Your task to perform on an android device: Do I have any events tomorrow? Image 0: 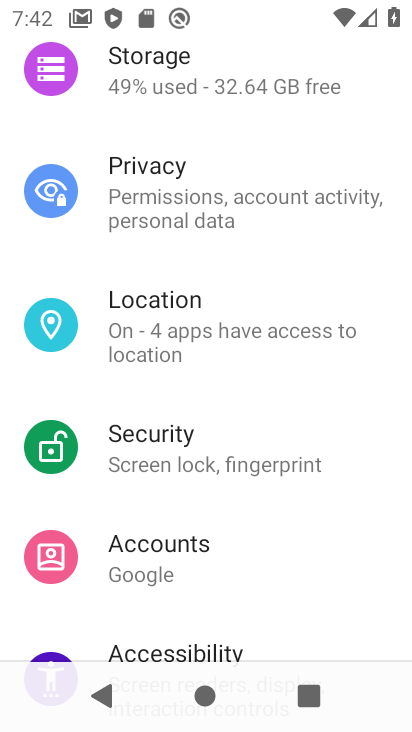
Step 0: press home button
Your task to perform on an android device: Do I have any events tomorrow? Image 1: 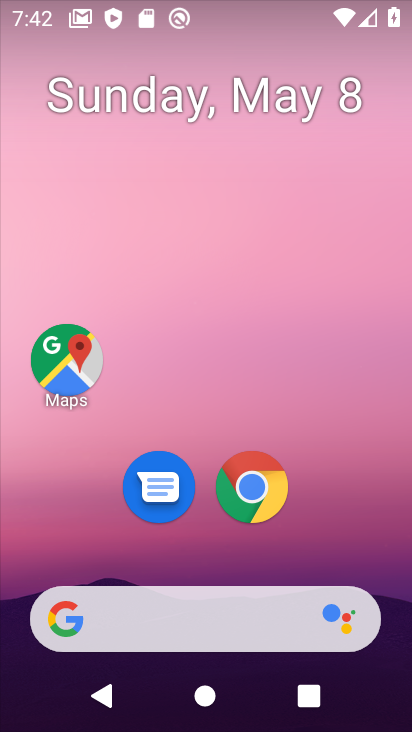
Step 1: drag from (347, 558) to (350, 35)
Your task to perform on an android device: Do I have any events tomorrow? Image 2: 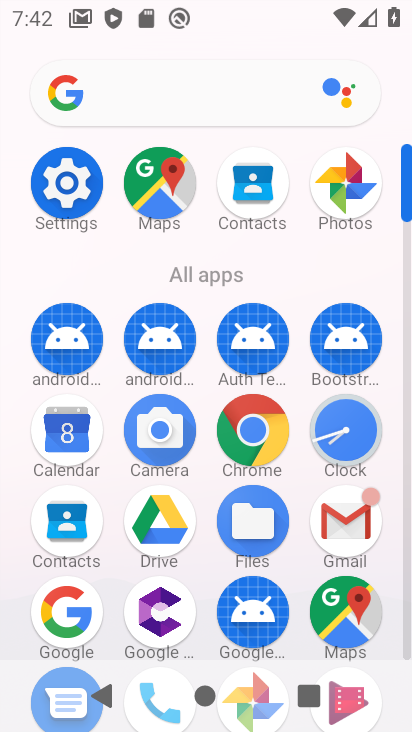
Step 2: click (71, 445)
Your task to perform on an android device: Do I have any events tomorrow? Image 3: 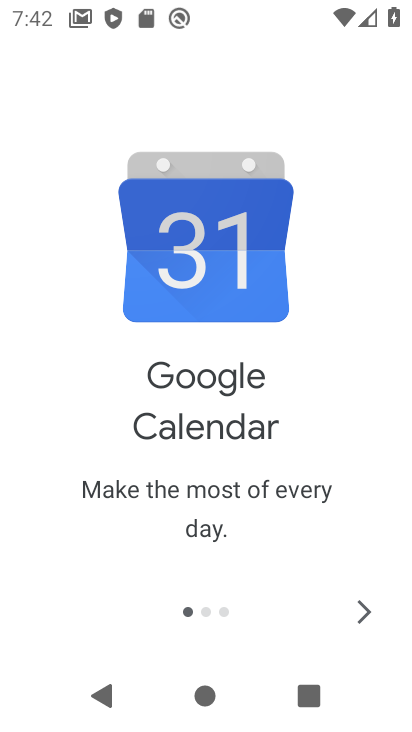
Step 3: click (362, 602)
Your task to perform on an android device: Do I have any events tomorrow? Image 4: 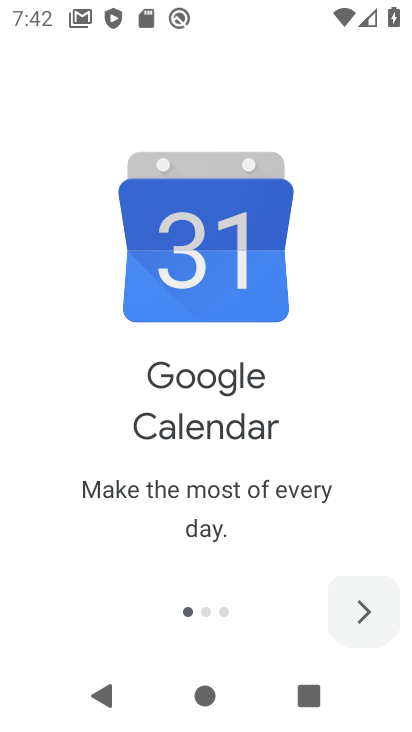
Step 4: click (362, 602)
Your task to perform on an android device: Do I have any events tomorrow? Image 5: 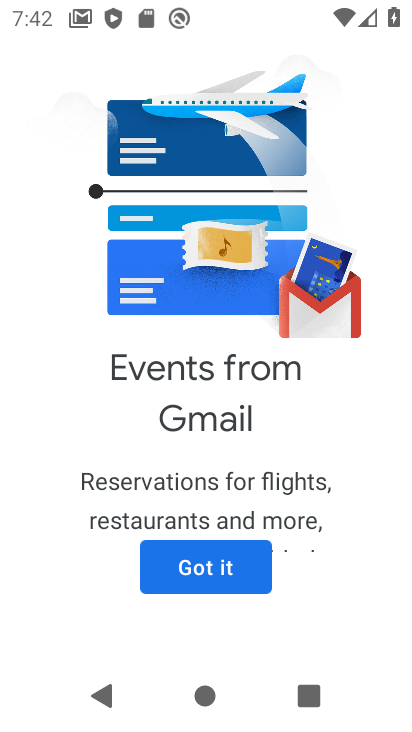
Step 5: click (362, 602)
Your task to perform on an android device: Do I have any events tomorrow? Image 6: 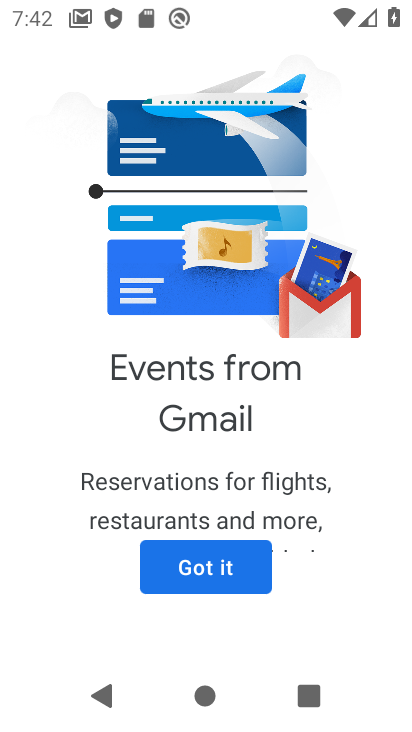
Step 6: click (217, 579)
Your task to perform on an android device: Do I have any events tomorrow? Image 7: 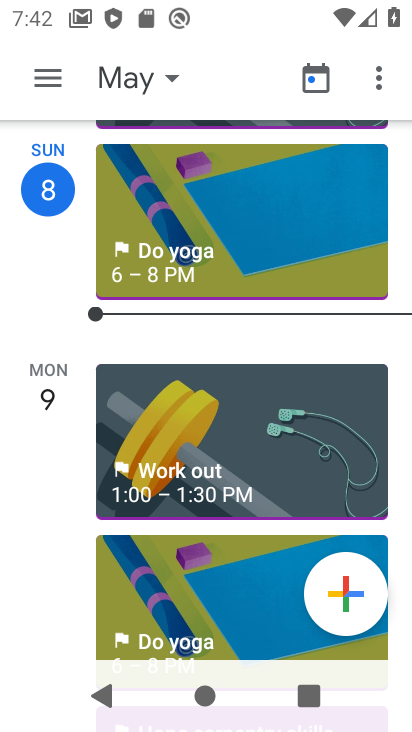
Step 7: click (160, 87)
Your task to perform on an android device: Do I have any events tomorrow? Image 8: 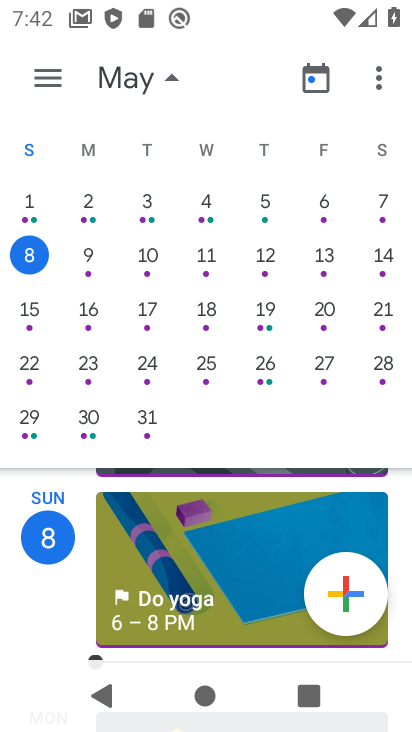
Step 8: click (143, 249)
Your task to perform on an android device: Do I have any events tomorrow? Image 9: 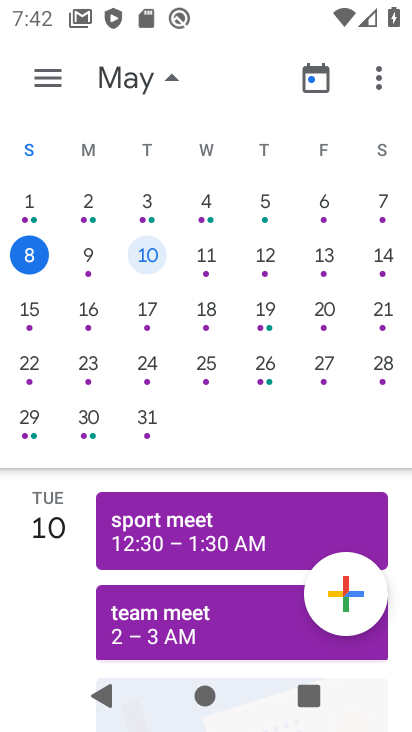
Step 9: task complete